Your task to perform on an android device: set an alarm Image 0: 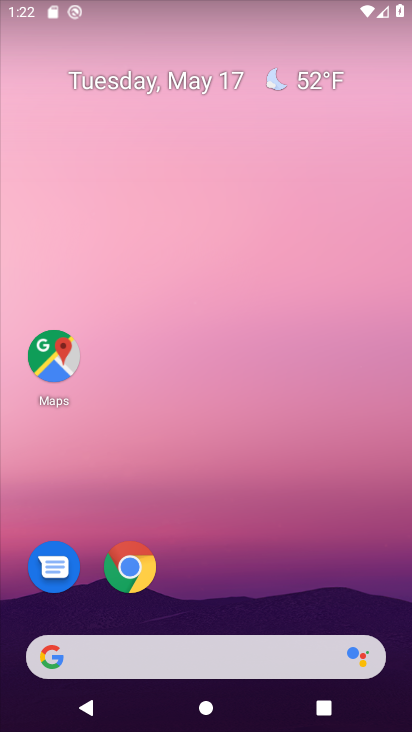
Step 0: press home button
Your task to perform on an android device: set an alarm Image 1: 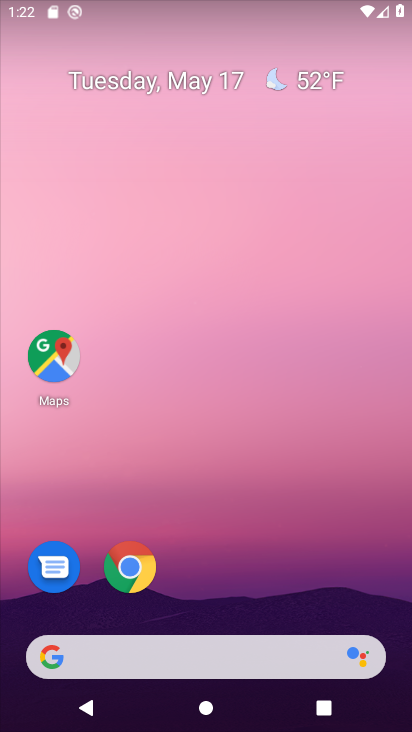
Step 1: press home button
Your task to perform on an android device: set an alarm Image 2: 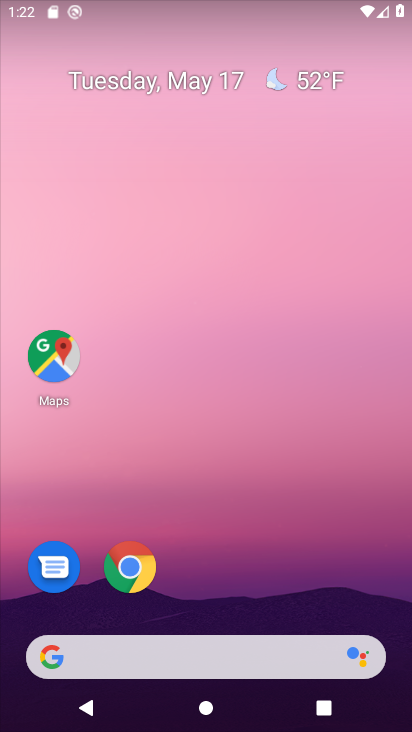
Step 2: drag from (187, 596) to (345, 27)
Your task to perform on an android device: set an alarm Image 3: 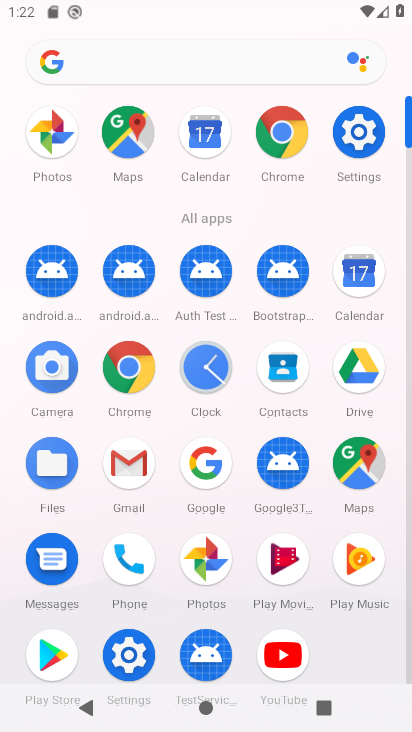
Step 3: click (222, 377)
Your task to perform on an android device: set an alarm Image 4: 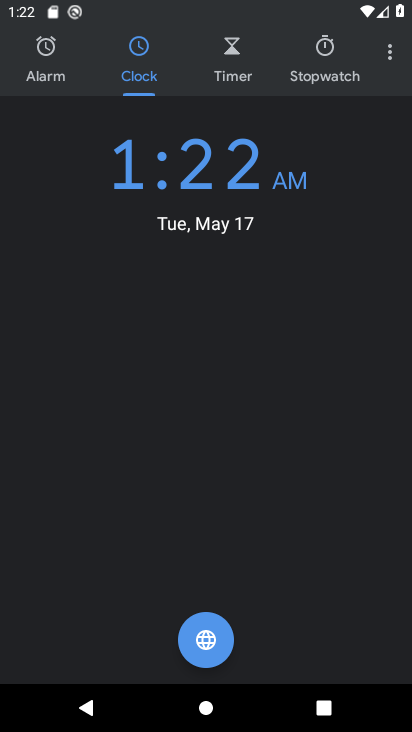
Step 4: click (47, 70)
Your task to perform on an android device: set an alarm Image 5: 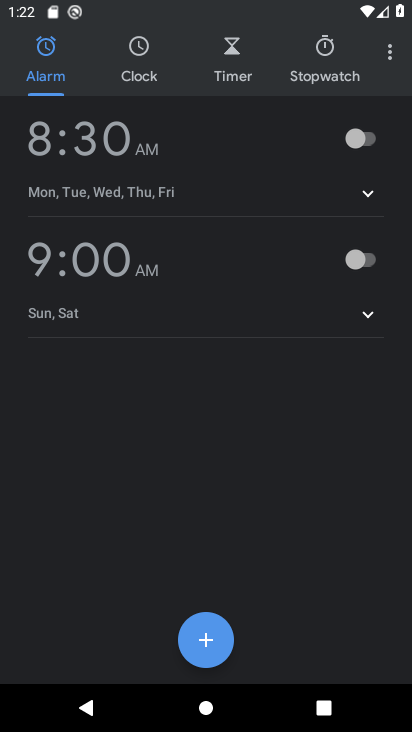
Step 5: click (373, 149)
Your task to perform on an android device: set an alarm Image 6: 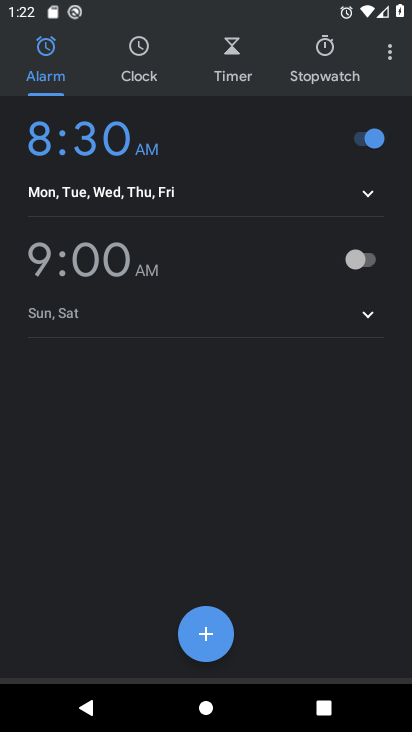
Step 6: task complete